Your task to perform on an android device: Add "bose quietcomfort 35" to the cart on ebay.com, then select checkout. Image 0: 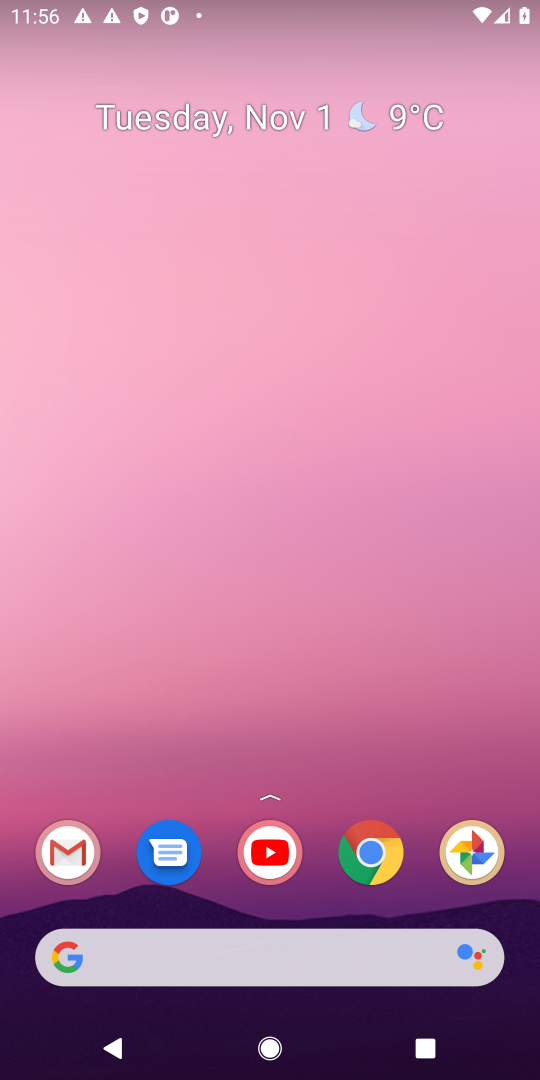
Step 0: drag from (302, 859) to (382, 232)
Your task to perform on an android device: Add "bose quietcomfort 35" to the cart on ebay.com, then select checkout. Image 1: 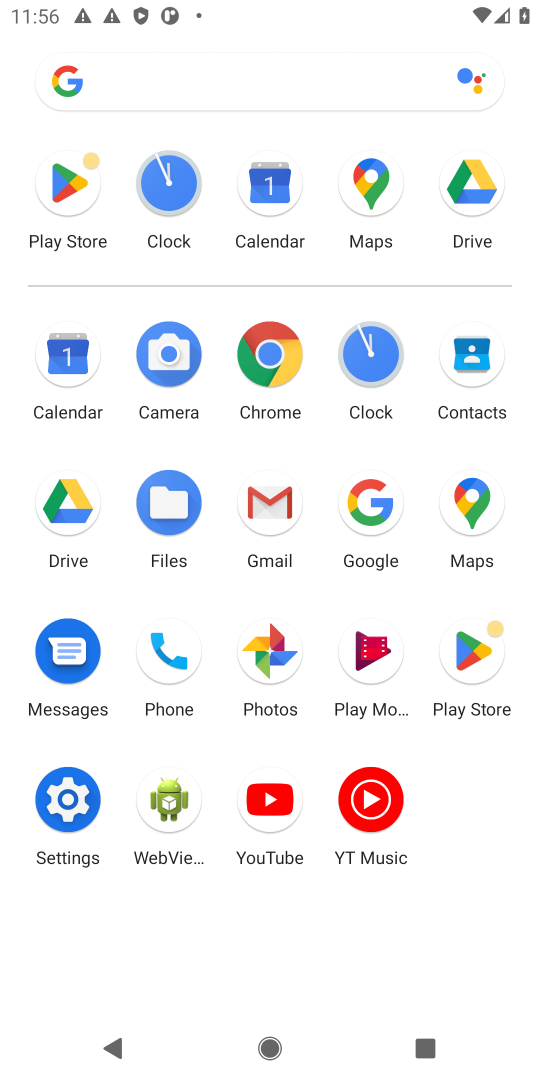
Step 1: click (385, 521)
Your task to perform on an android device: Add "bose quietcomfort 35" to the cart on ebay.com, then select checkout. Image 2: 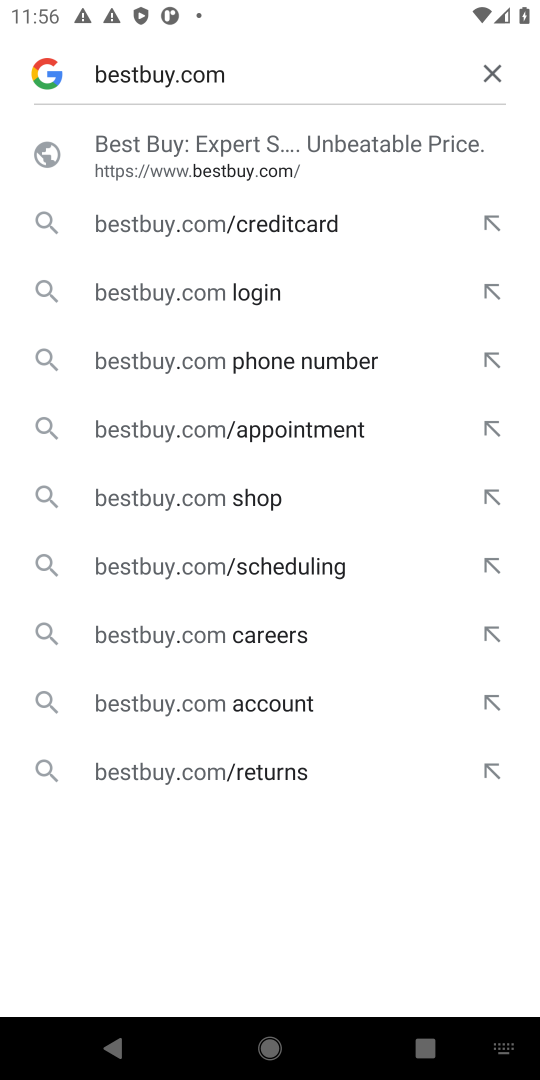
Step 2: click (286, 165)
Your task to perform on an android device: Add "bose quietcomfort 35" to the cart on ebay.com, then select checkout. Image 3: 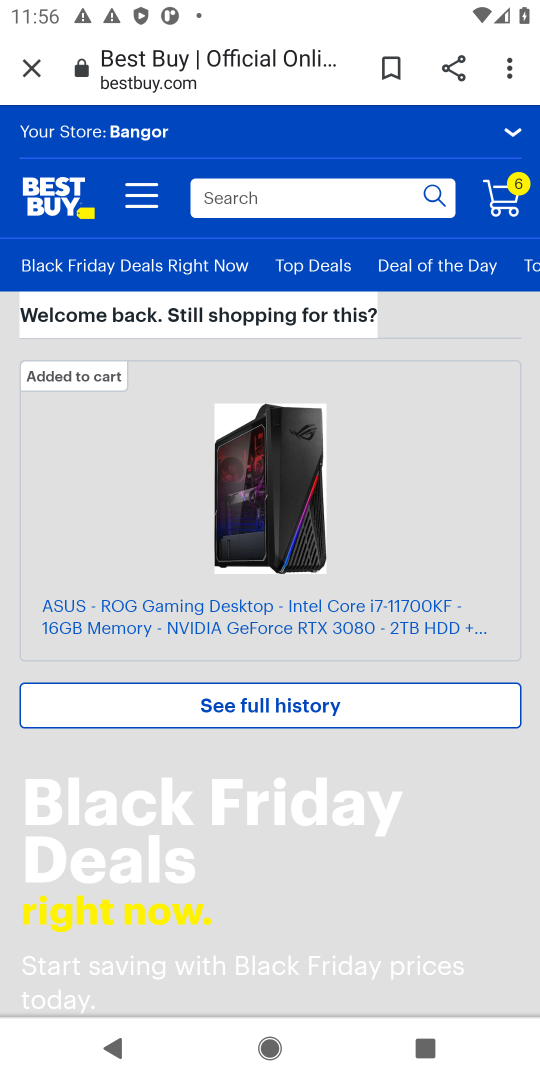
Step 3: click (275, 198)
Your task to perform on an android device: Add "bose quietcomfort 35" to the cart on ebay.com, then select checkout. Image 4: 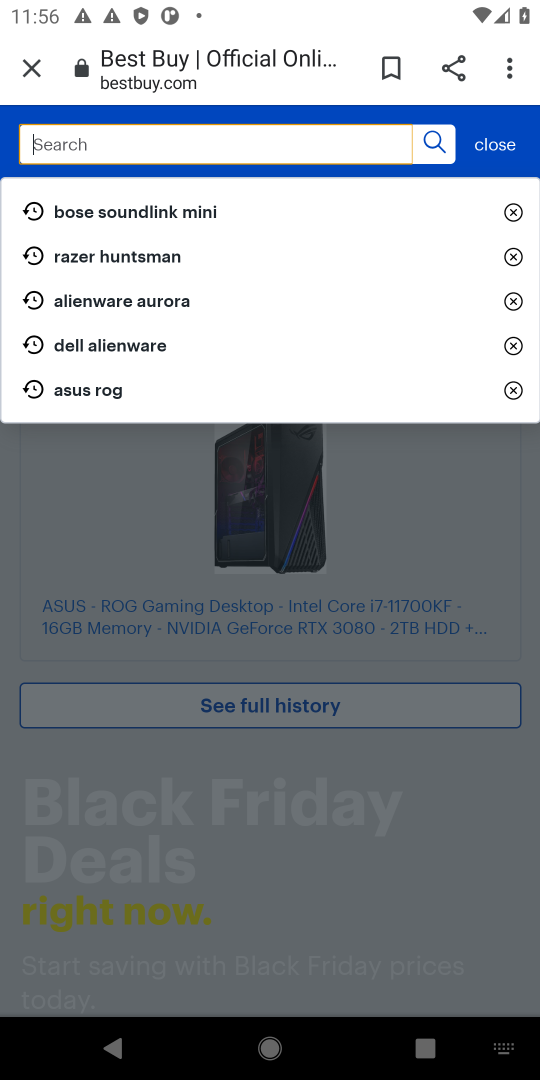
Step 4: type "bose quietcomfort 35"
Your task to perform on an android device: Add "bose quietcomfort 35" to the cart on ebay.com, then select checkout. Image 5: 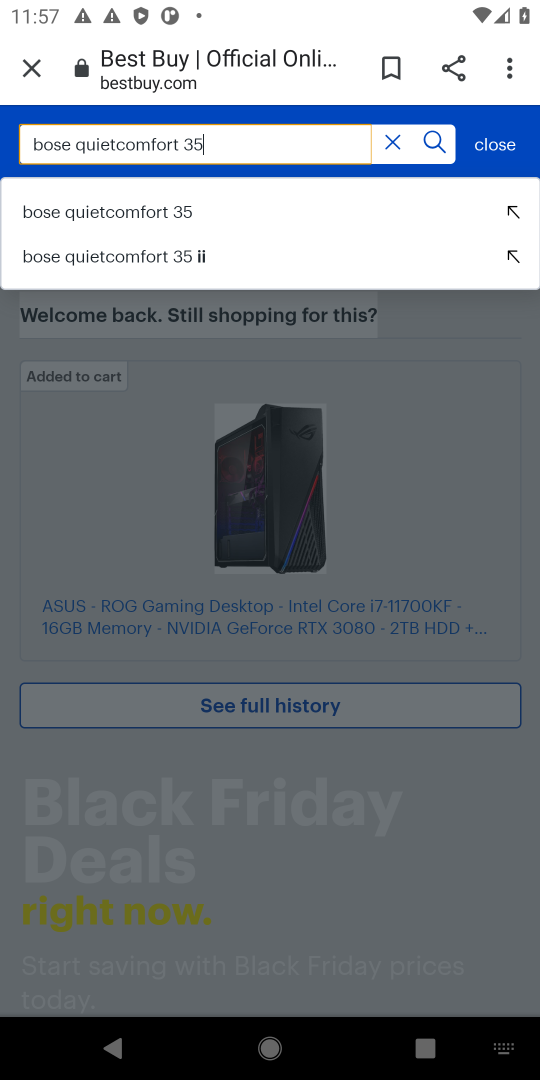
Step 5: click (164, 202)
Your task to perform on an android device: Add "bose quietcomfort 35" to the cart on ebay.com, then select checkout. Image 6: 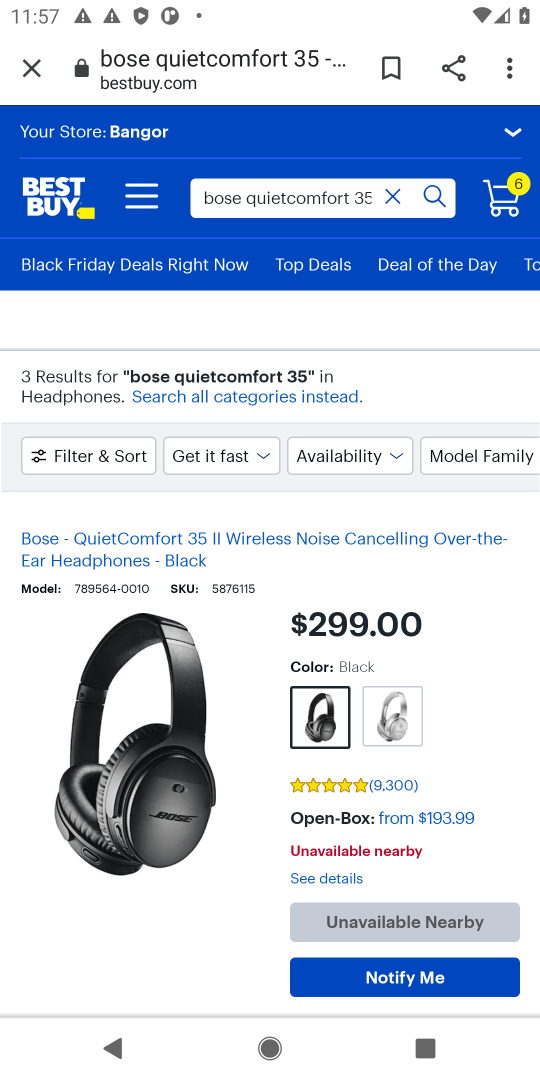
Step 6: drag from (243, 833) to (298, 176)
Your task to perform on an android device: Add "bose quietcomfort 35" to the cart on ebay.com, then select checkout. Image 7: 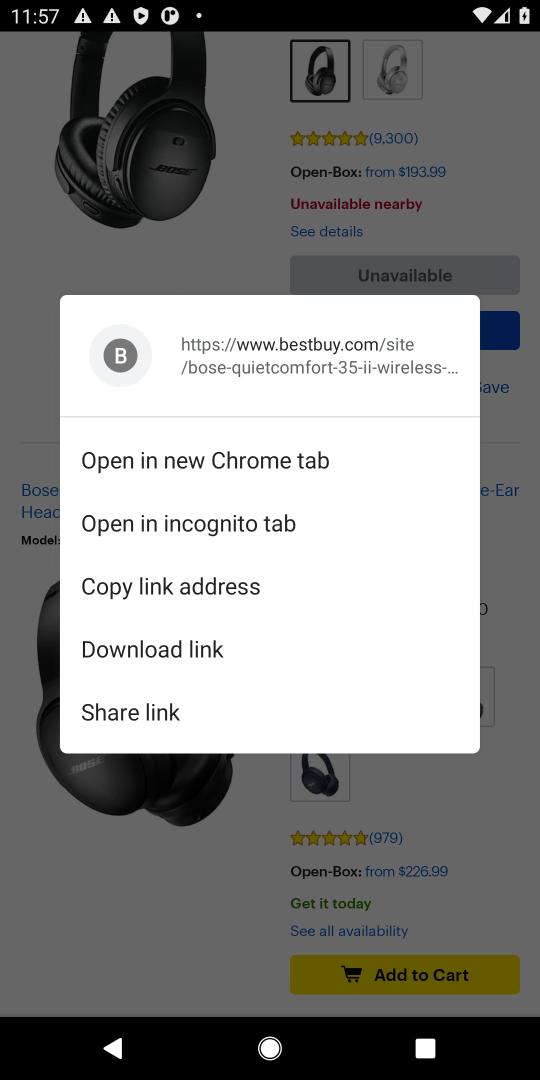
Step 7: click (177, 214)
Your task to perform on an android device: Add "bose quietcomfort 35" to the cart on ebay.com, then select checkout. Image 8: 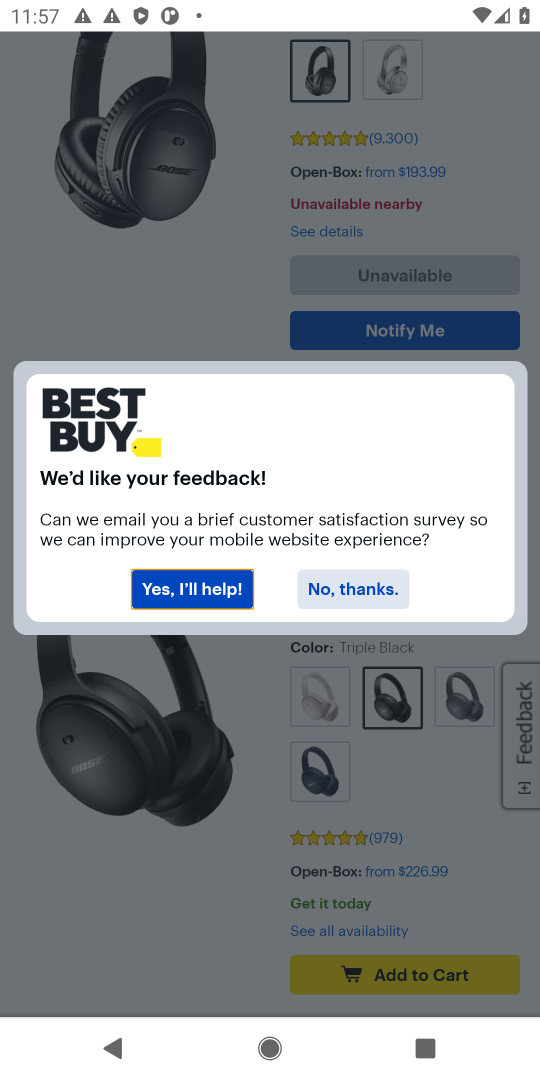
Step 8: click (337, 591)
Your task to perform on an android device: Add "bose quietcomfort 35" to the cart on ebay.com, then select checkout. Image 9: 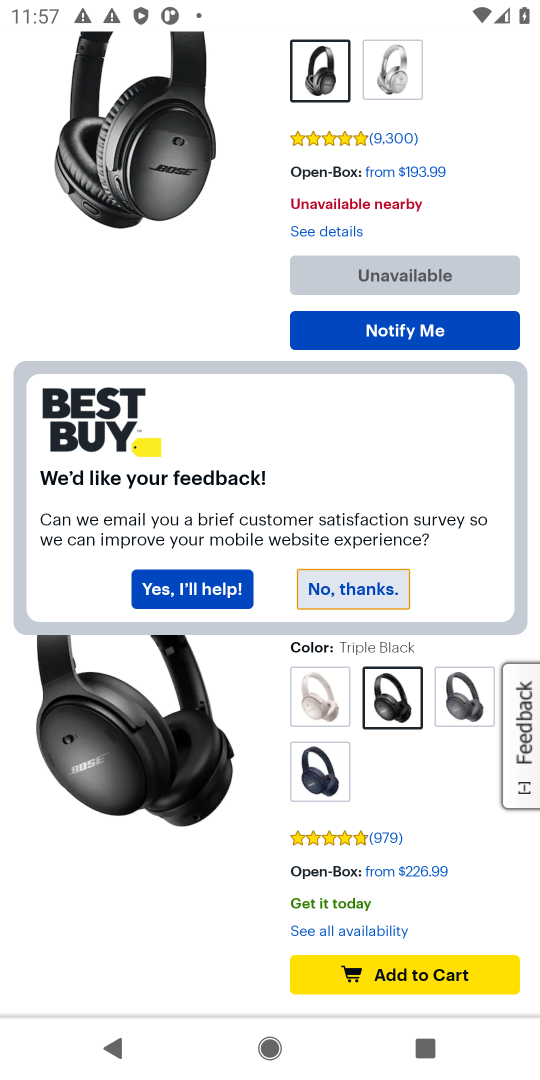
Step 9: drag from (215, 719) to (251, 312)
Your task to perform on an android device: Add "bose quietcomfort 35" to the cart on ebay.com, then select checkout. Image 10: 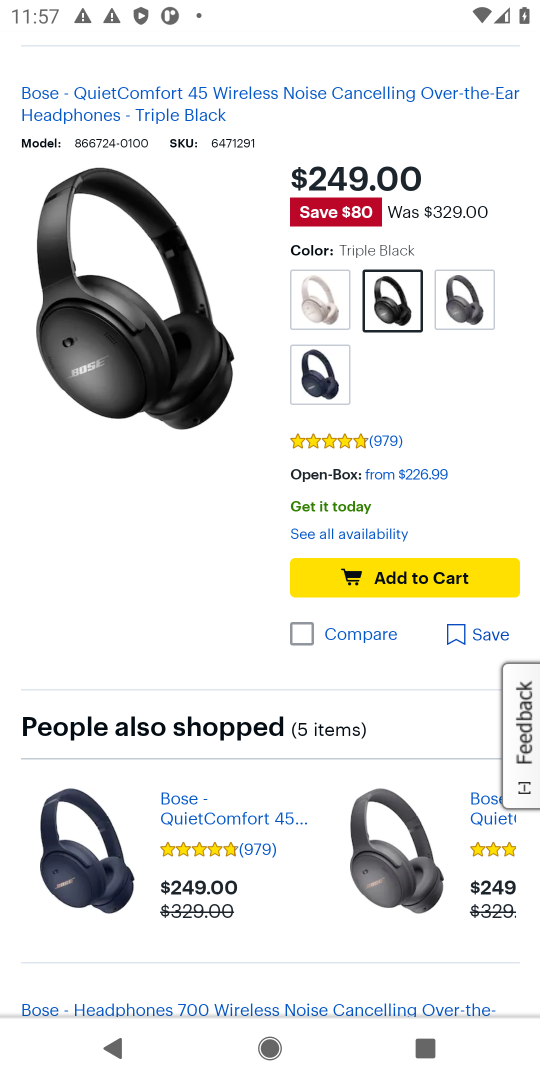
Step 10: click (420, 588)
Your task to perform on an android device: Add "bose quietcomfort 35" to the cart on ebay.com, then select checkout. Image 11: 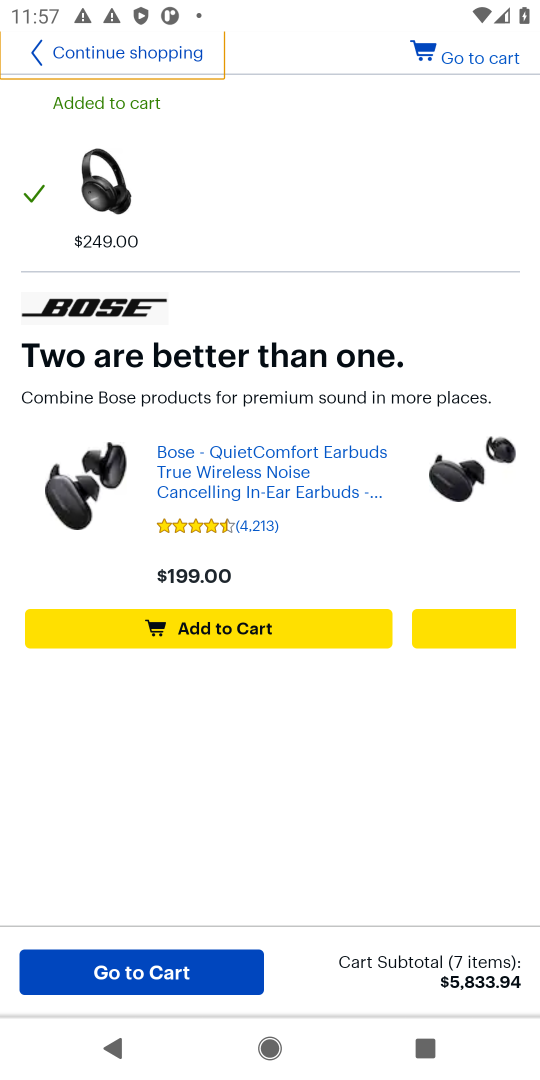
Step 11: click (182, 972)
Your task to perform on an android device: Add "bose quietcomfort 35" to the cart on ebay.com, then select checkout. Image 12: 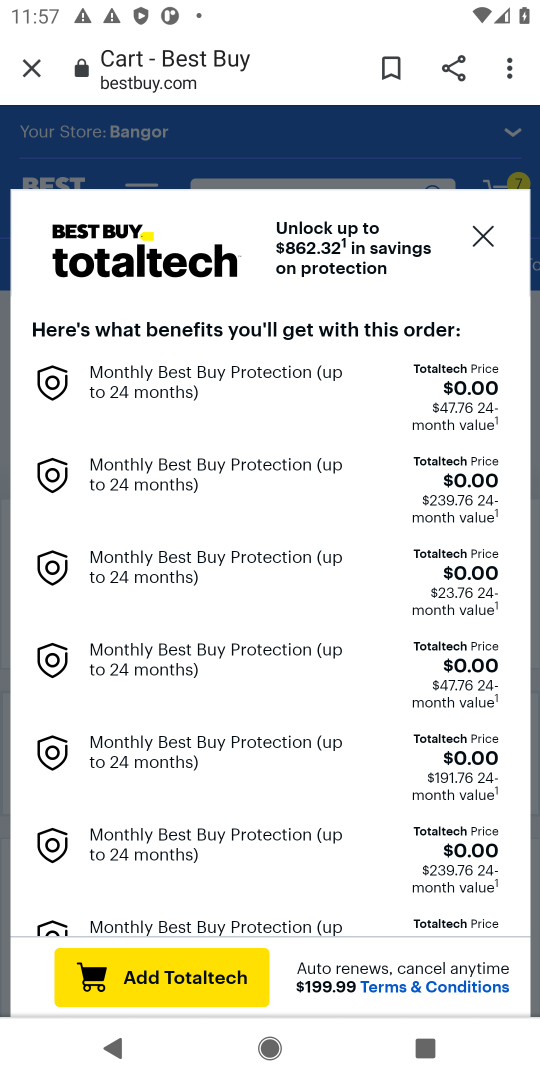
Step 12: click (355, 615)
Your task to perform on an android device: Add "bose quietcomfort 35" to the cart on ebay.com, then select checkout. Image 13: 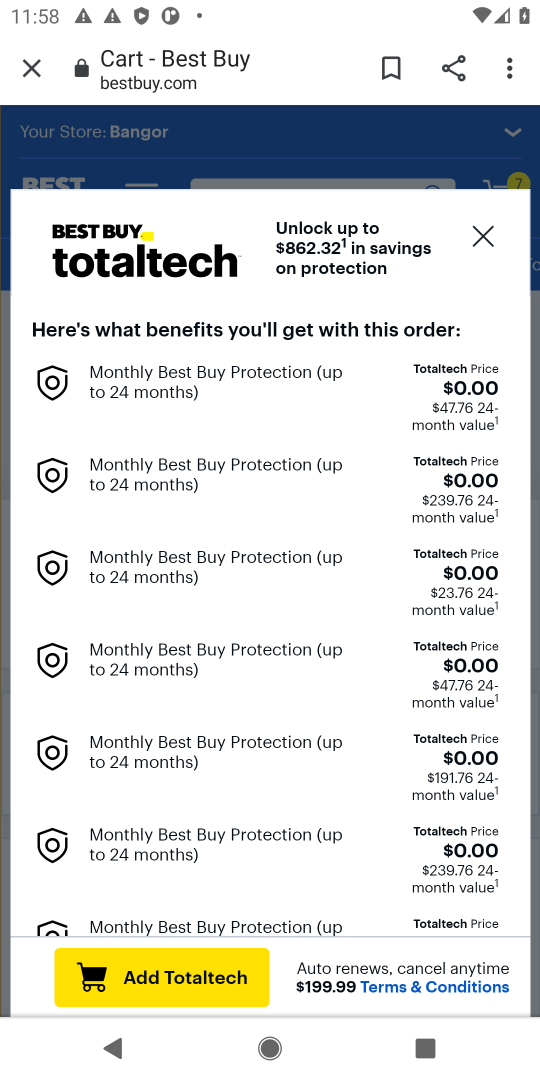
Step 13: click (493, 245)
Your task to perform on an android device: Add "bose quietcomfort 35" to the cart on ebay.com, then select checkout. Image 14: 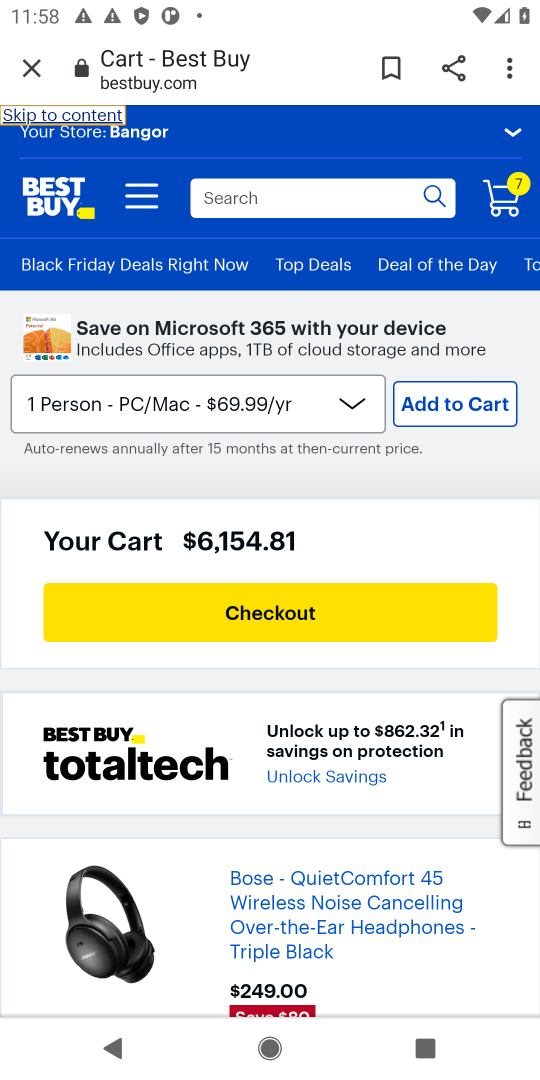
Step 14: click (332, 595)
Your task to perform on an android device: Add "bose quietcomfort 35" to the cart on ebay.com, then select checkout. Image 15: 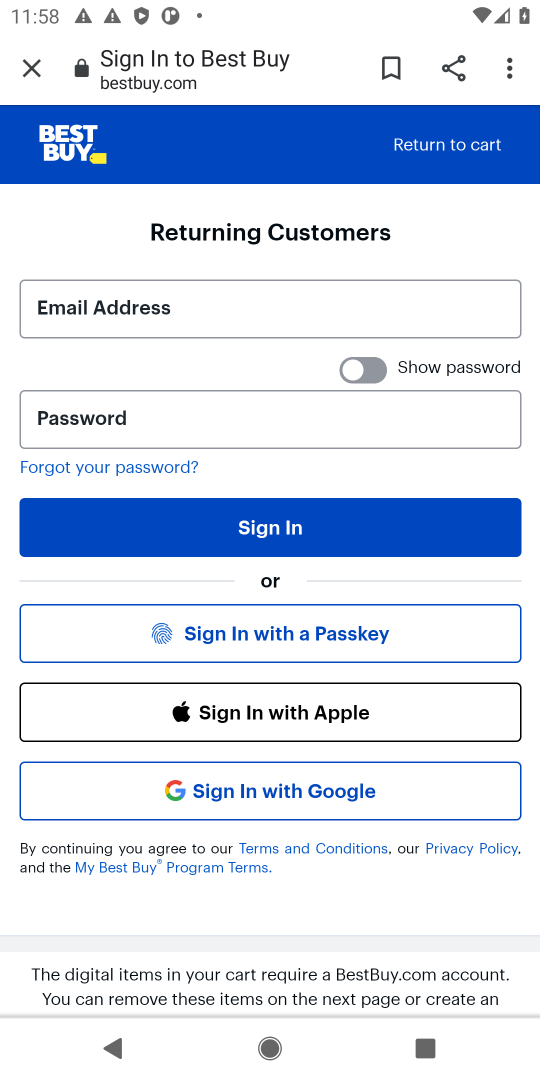
Step 15: task complete